Your task to perform on an android device: delete location history Image 0: 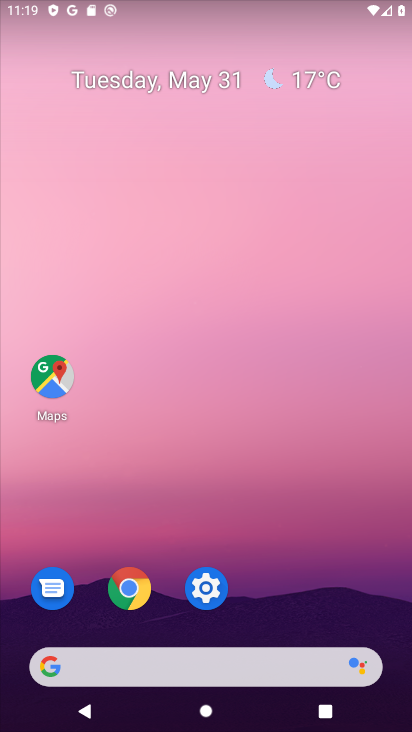
Step 0: drag from (266, 674) to (254, 85)
Your task to perform on an android device: delete location history Image 1: 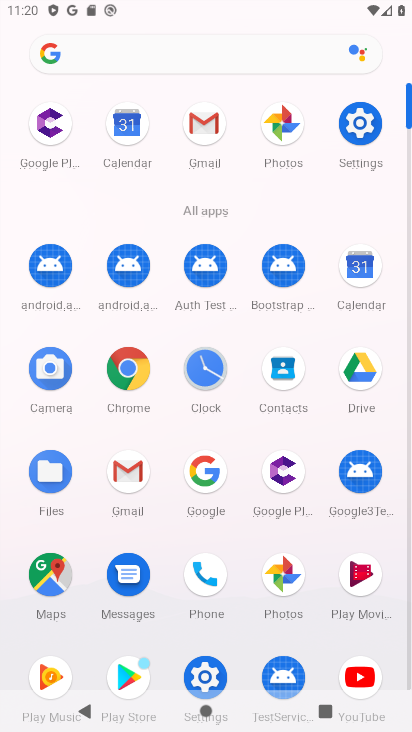
Step 1: click (347, 140)
Your task to perform on an android device: delete location history Image 2: 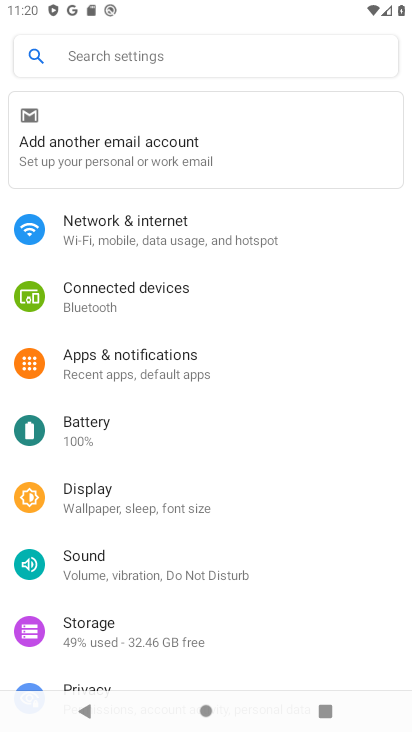
Step 2: click (164, 67)
Your task to perform on an android device: delete location history Image 3: 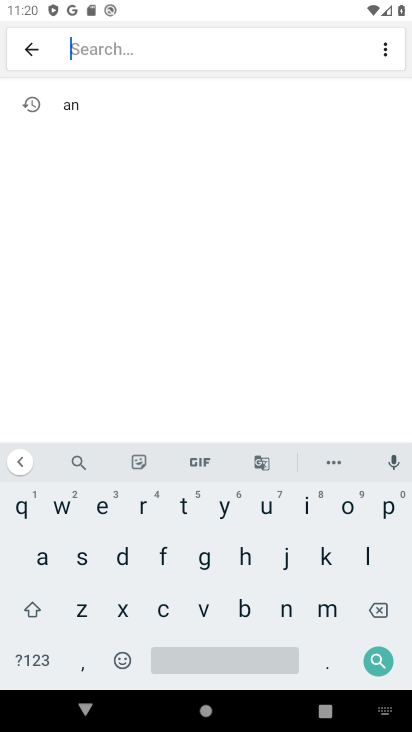
Step 3: click (369, 554)
Your task to perform on an android device: delete location history Image 4: 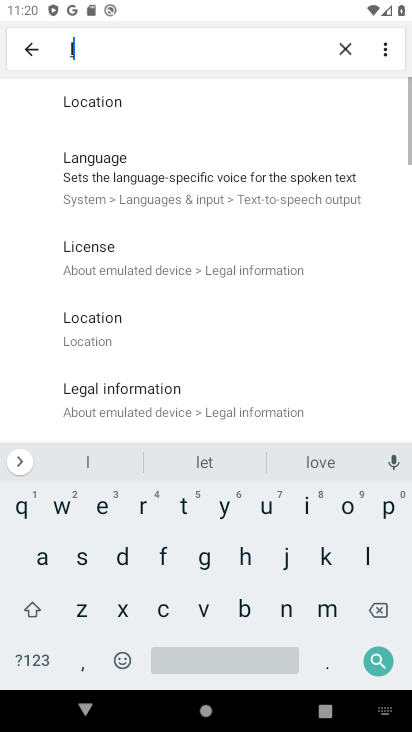
Step 4: click (349, 509)
Your task to perform on an android device: delete location history Image 5: 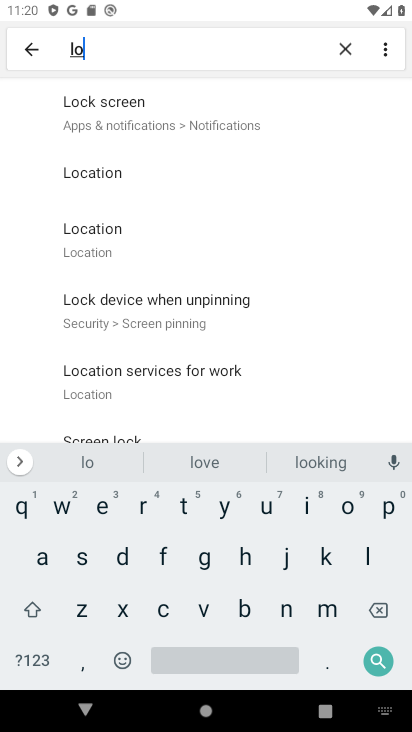
Step 5: click (90, 242)
Your task to perform on an android device: delete location history Image 6: 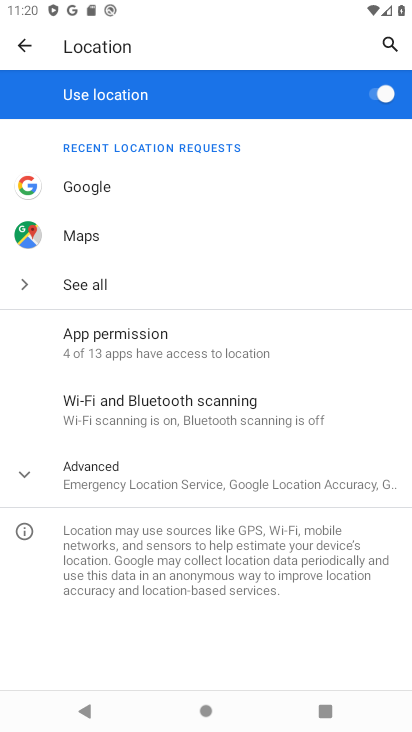
Step 6: click (78, 461)
Your task to perform on an android device: delete location history Image 7: 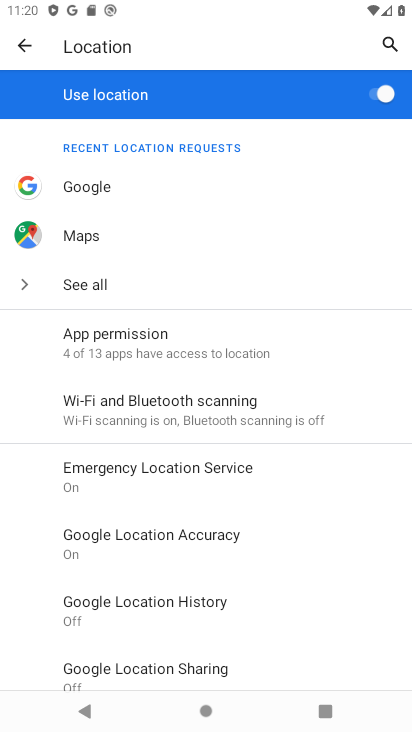
Step 7: click (137, 599)
Your task to perform on an android device: delete location history Image 8: 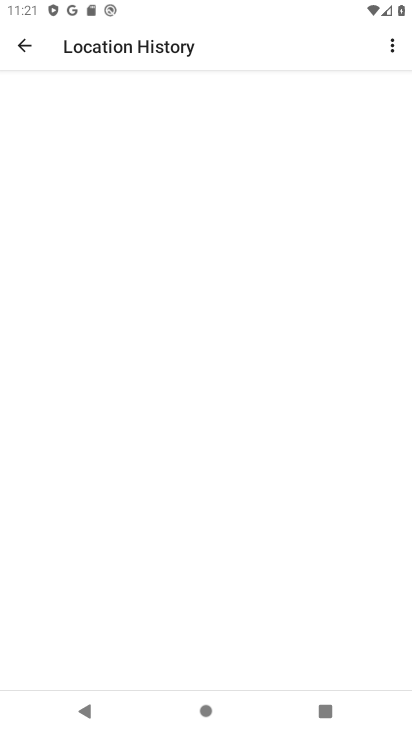
Step 8: task complete